Your task to perform on an android device: Open the web browser Image 0: 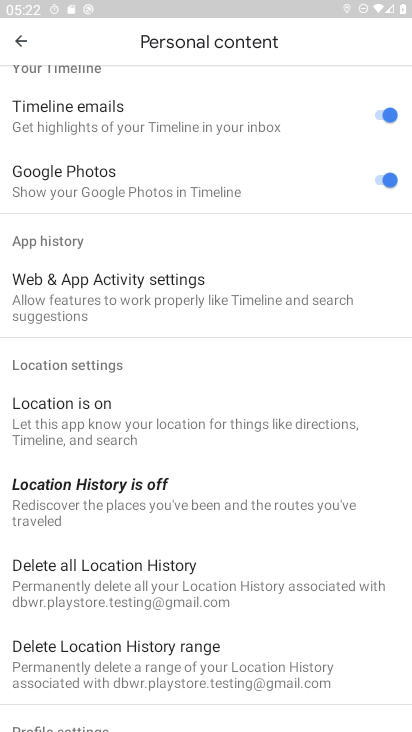
Step 0: press home button
Your task to perform on an android device: Open the web browser Image 1: 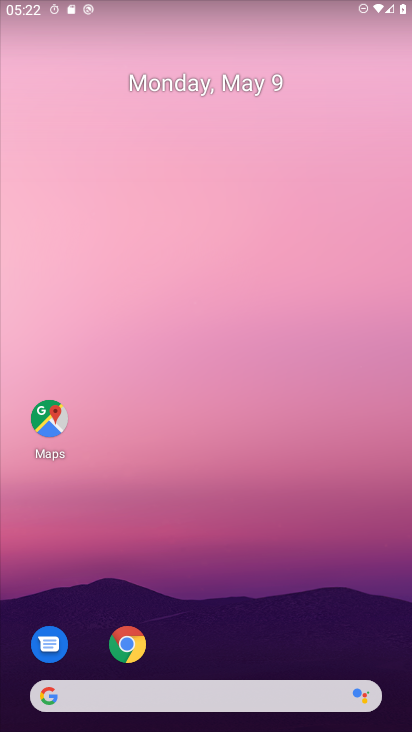
Step 1: click (125, 646)
Your task to perform on an android device: Open the web browser Image 2: 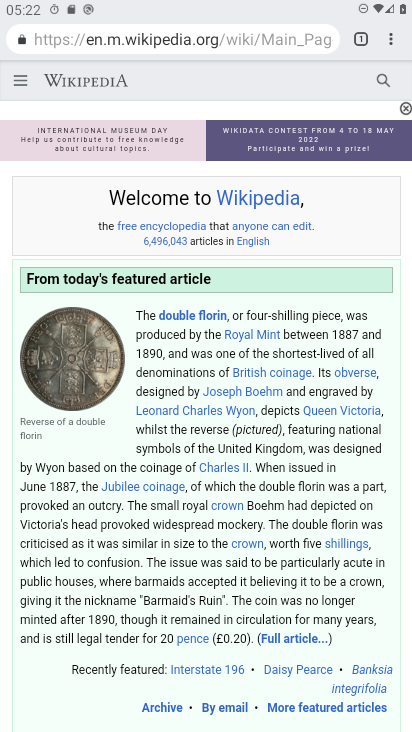
Step 2: task complete